Your task to perform on an android device: When is my next meeting? Image 0: 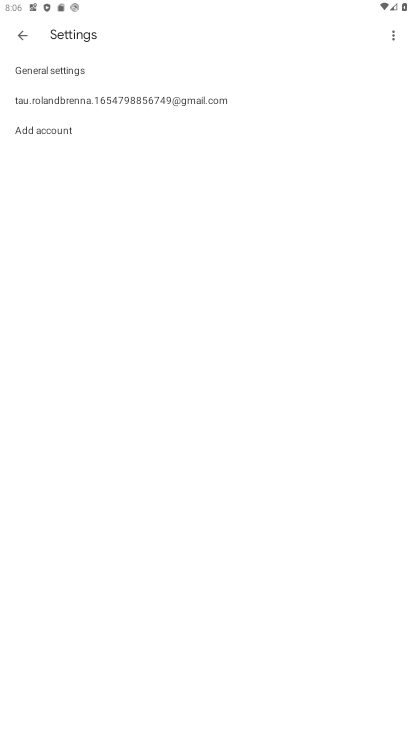
Step 0: press home button
Your task to perform on an android device: When is my next meeting? Image 1: 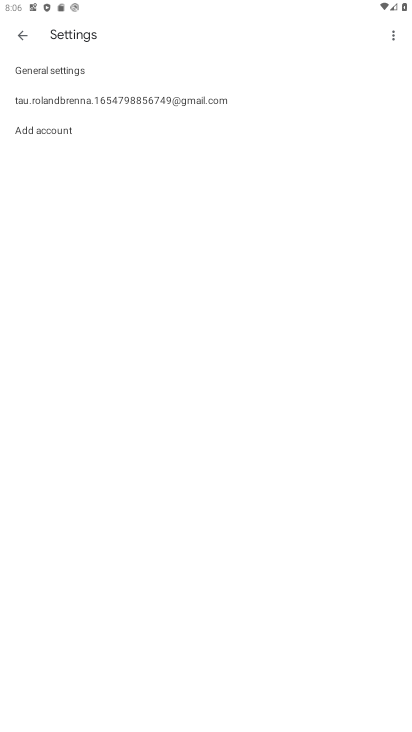
Step 1: drag from (151, 457) to (310, 157)
Your task to perform on an android device: When is my next meeting? Image 2: 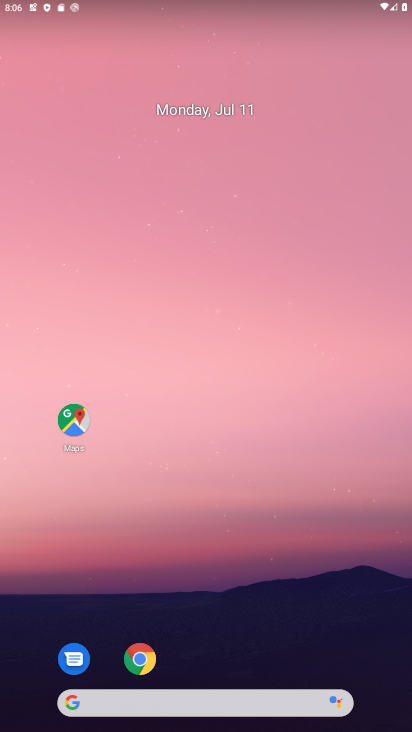
Step 2: drag from (219, 656) to (264, 295)
Your task to perform on an android device: When is my next meeting? Image 3: 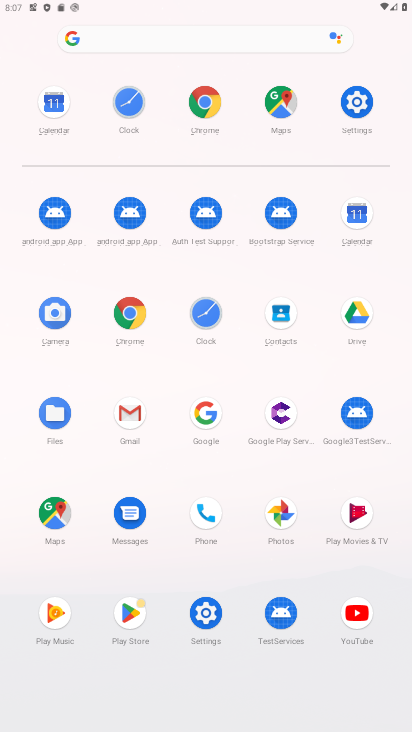
Step 3: click (354, 202)
Your task to perform on an android device: When is my next meeting? Image 4: 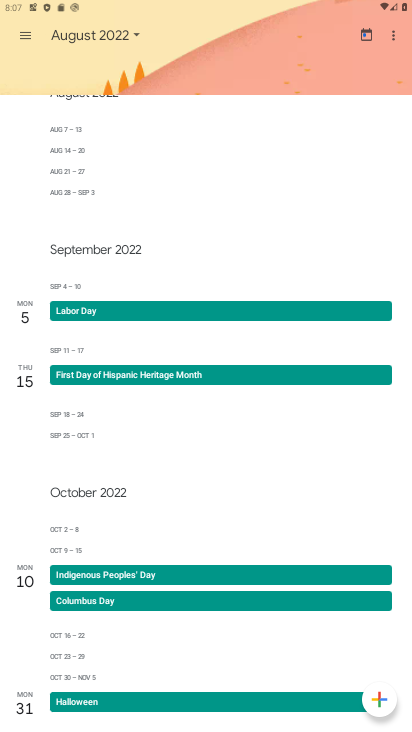
Step 4: click (113, 32)
Your task to perform on an android device: When is my next meeting? Image 5: 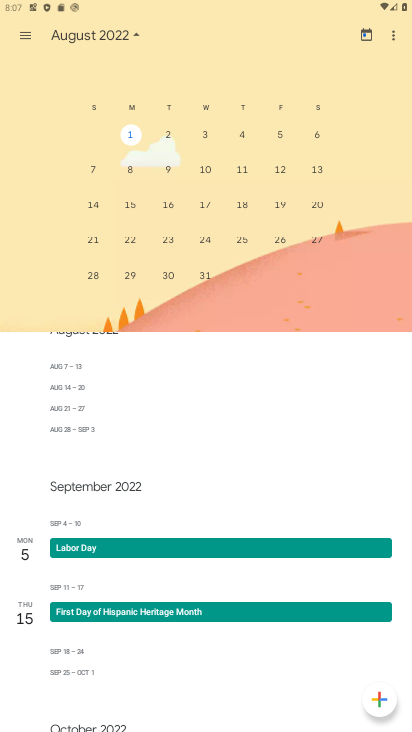
Step 5: drag from (186, 461) to (245, 125)
Your task to perform on an android device: When is my next meeting? Image 6: 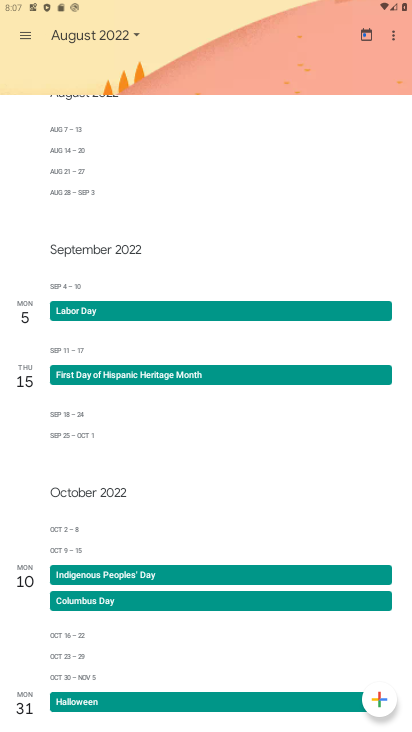
Step 6: drag from (242, 592) to (278, 267)
Your task to perform on an android device: When is my next meeting? Image 7: 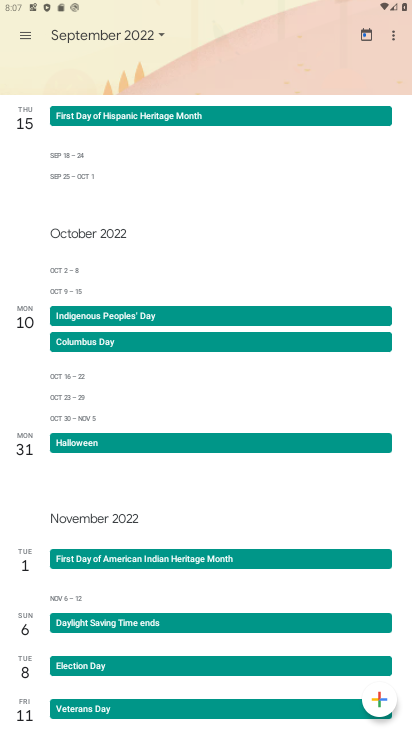
Step 7: drag from (271, 231) to (227, 670)
Your task to perform on an android device: When is my next meeting? Image 8: 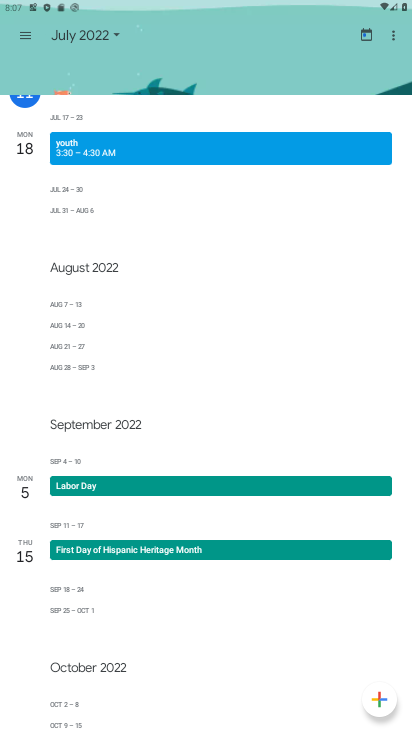
Step 8: click (123, 33)
Your task to perform on an android device: When is my next meeting? Image 9: 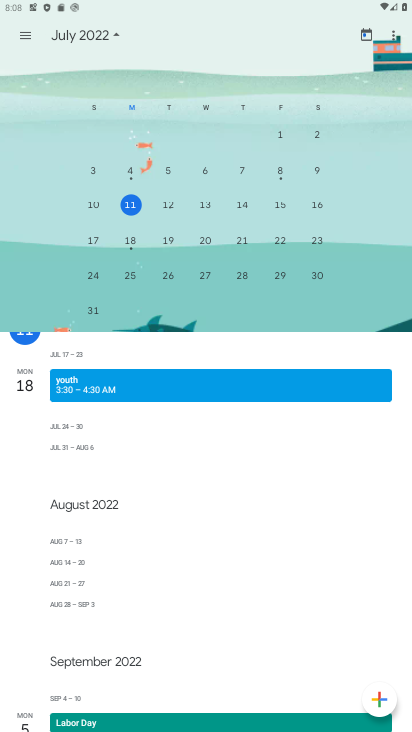
Step 9: task complete